Your task to perform on an android device: toggle airplane mode Image 0: 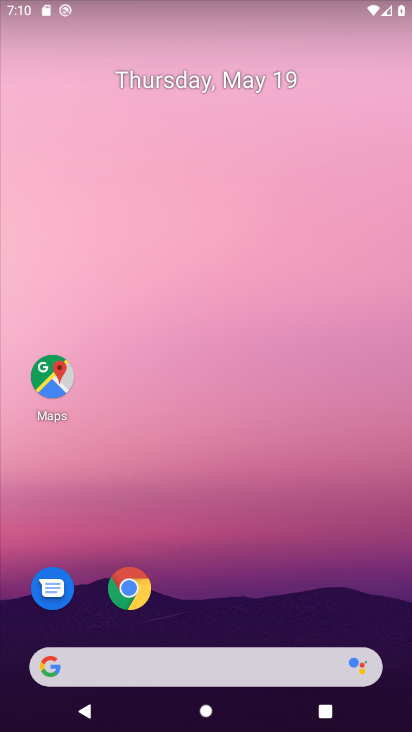
Step 0: drag from (349, 2) to (359, 484)
Your task to perform on an android device: toggle airplane mode Image 1: 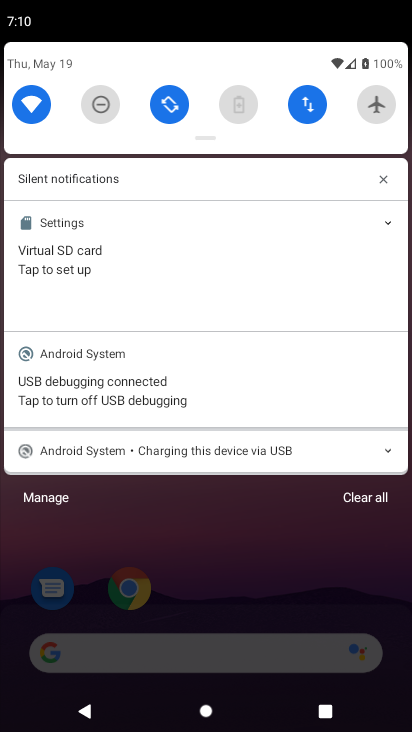
Step 1: click (376, 102)
Your task to perform on an android device: toggle airplane mode Image 2: 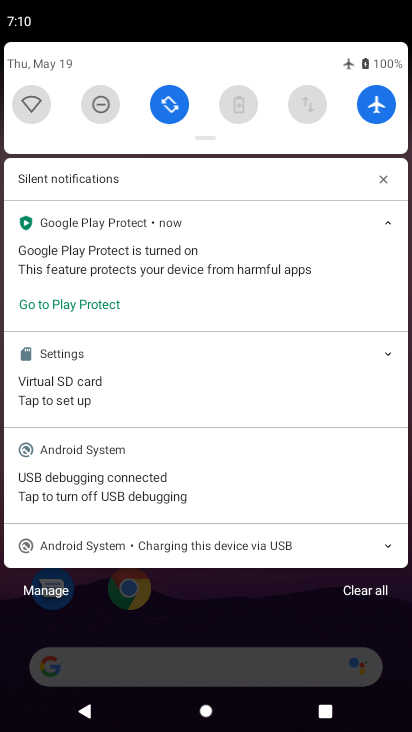
Step 2: task complete